Your task to perform on an android device: allow cookies in the chrome app Image 0: 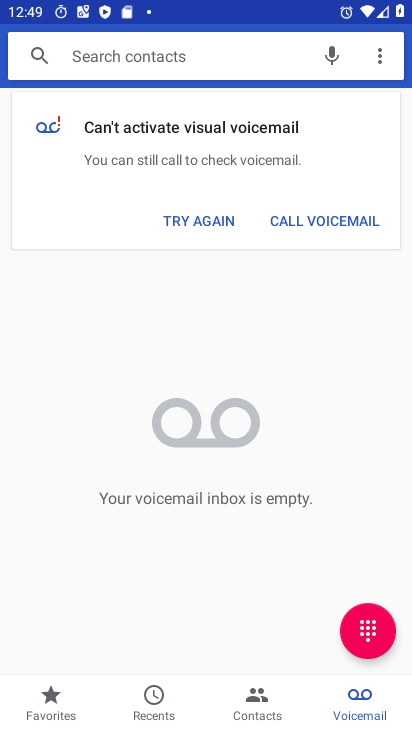
Step 0: press home button
Your task to perform on an android device: allow cookies in the chrome app Image 1: 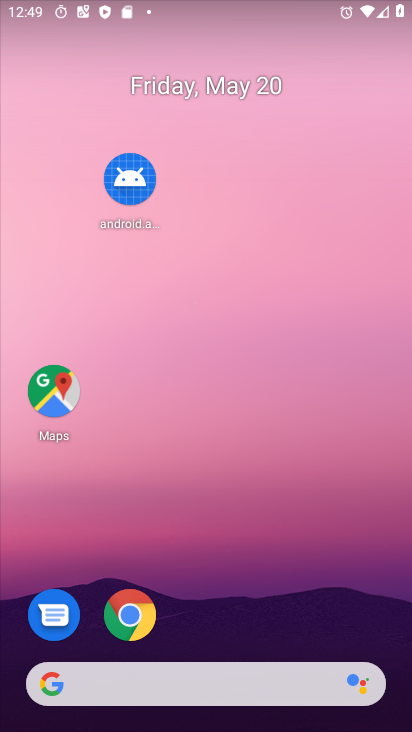
Step 1: click (144, 611)
Your task to perform on an android device: allow cookies in the chrome app Image 2: 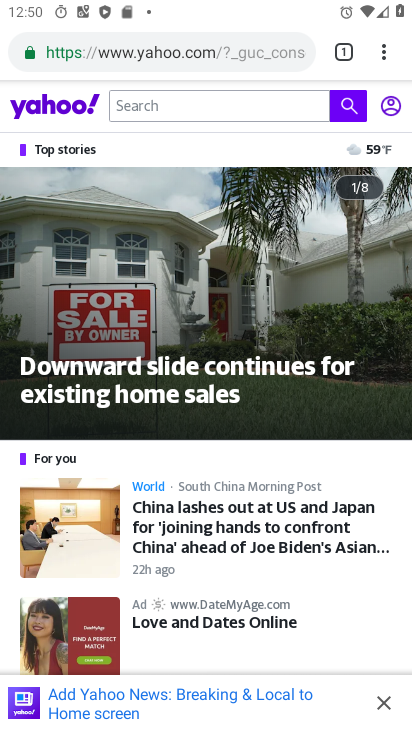
Step 2: click (389, 43)
Your task to perform on an android device: allow cookies in the chrome app Image 3: 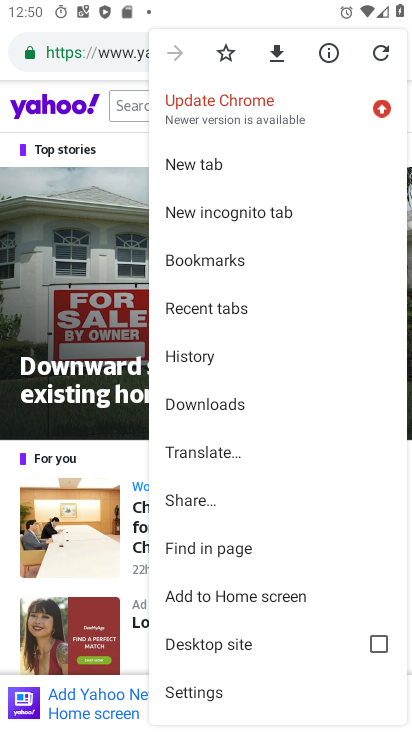
Step 3: click (206, 693)
Your task to perform on an android device: allow cookies in the chrome app Image 4: 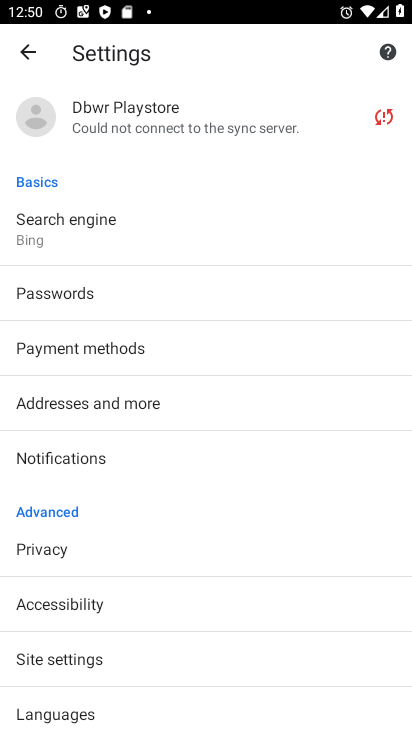
Step 4: drag from (180, 600) to (140, 286)
Your task to perform on an android device: allow cookies in the chrome app Image 5: 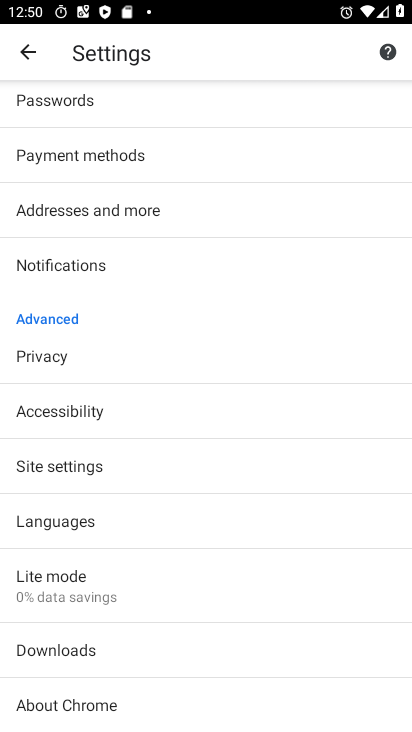
Step 5: drag from (216, 672) to (185, 546)
Your task to perform on an android device: allow cookies in the chrome app Image 6: 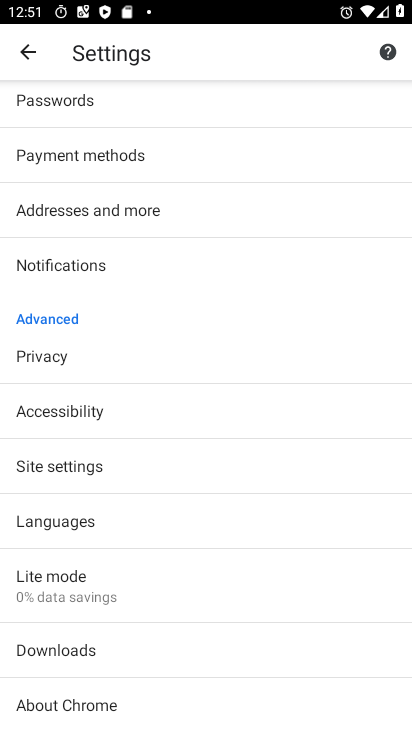
Step 6: click (135, 468)
Your task to perform on an android device: allow cookies in the chrome app Image 7: 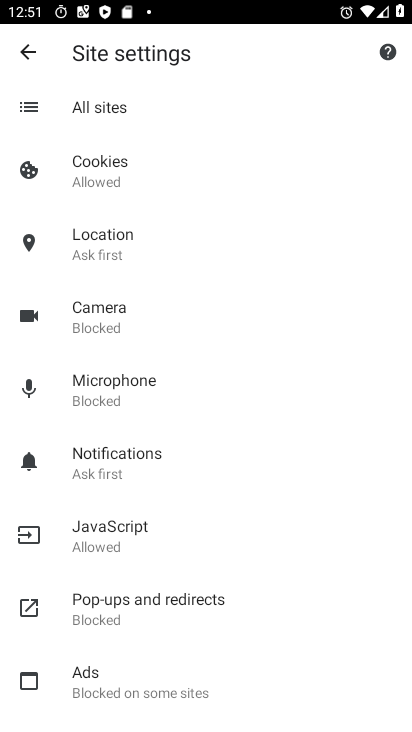
Step 7: click (110, 160)
Your task to perform on an android device: allow cookies in the chrome app Image 8: 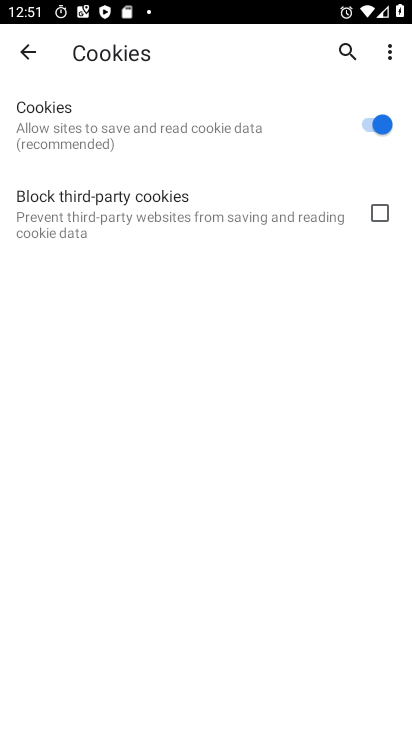
Step 8: task complete